Your task to perform on an android device: Search for vegetarian restaurants on Maps Image 0: 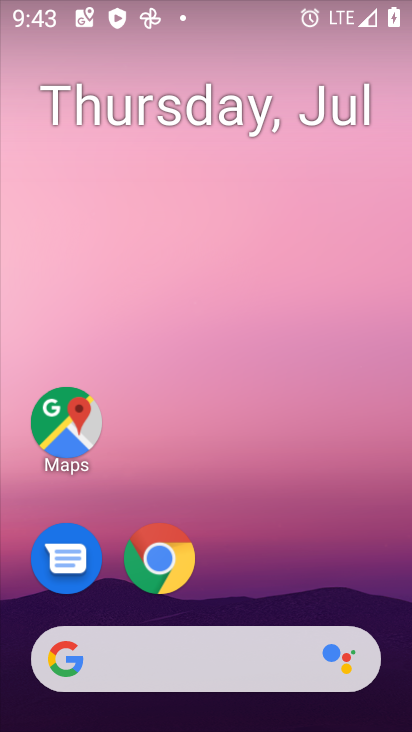
Step 0: press home button
Your task to perform on an android device: Search for vegetarian restaurants on Maps Image 1: 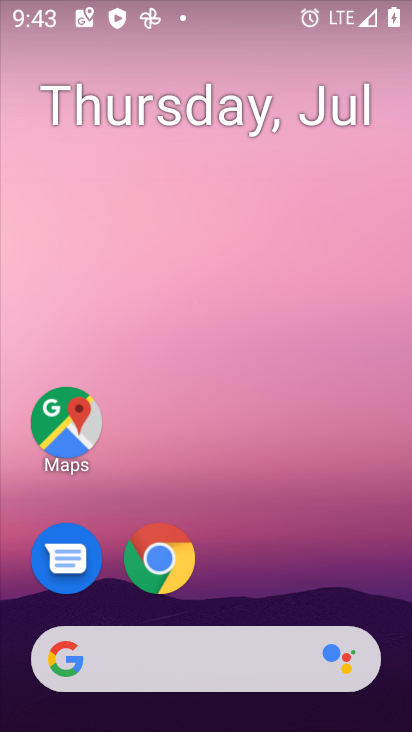
Step 1: drag from (353, 567) to (409, 566)
Your task to perform on an android device: Search for vegetarian restaurants on Maps Image 2: 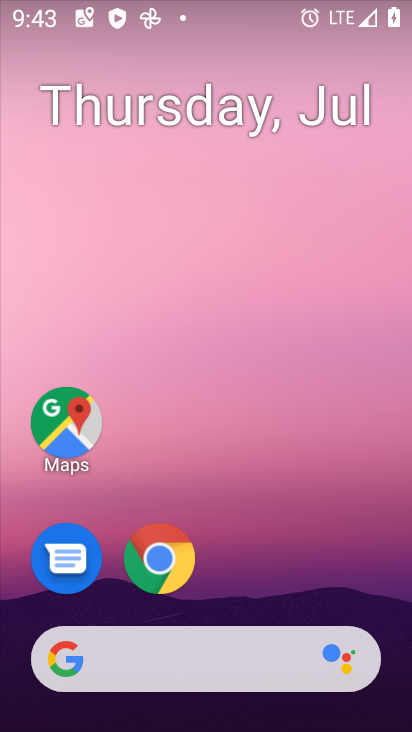
Step 2: drag from (355, 557) to (358, 19)
Your task to perform on an android device: Search for vegetarian restaurants on Maps Image 3: 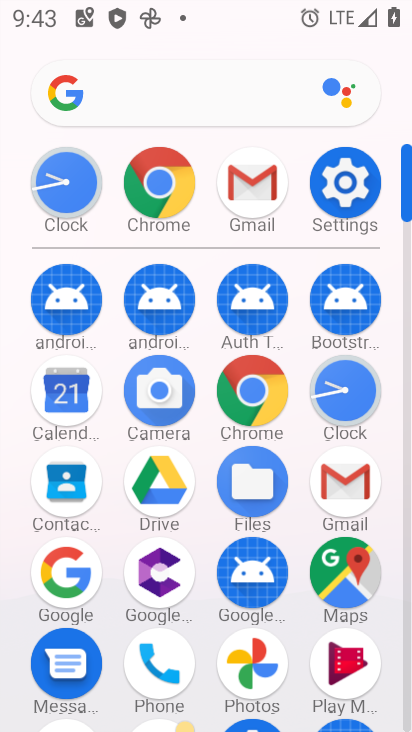
Step 3: click (350, 578)
Your task to perform on an android device: Search for vegetarian restaurants on Maps Image 4: 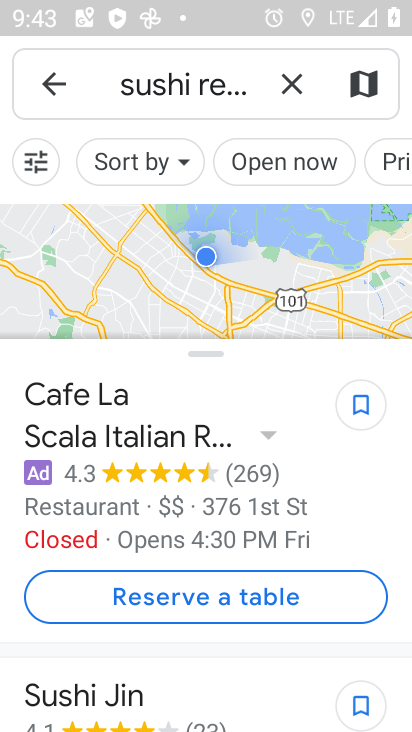
Step 4: press back button
Your task to perform on an android device: Search for vegetarian restaurants on Maps Image 5: 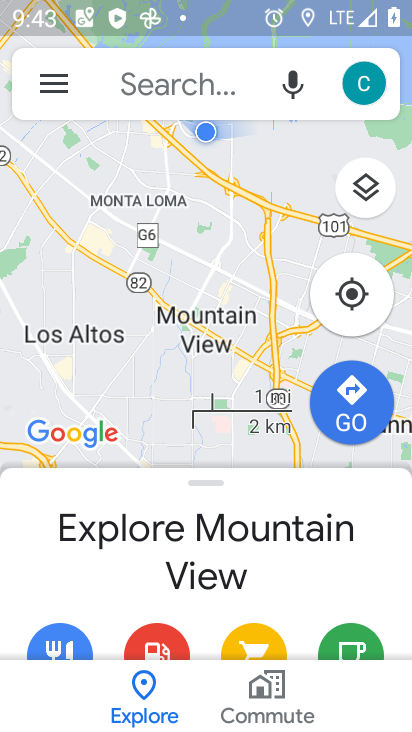
Step 5: click (173, 75)
Your task to perform on an android device: Search for vegetarian restaurants on Maps Image 6: 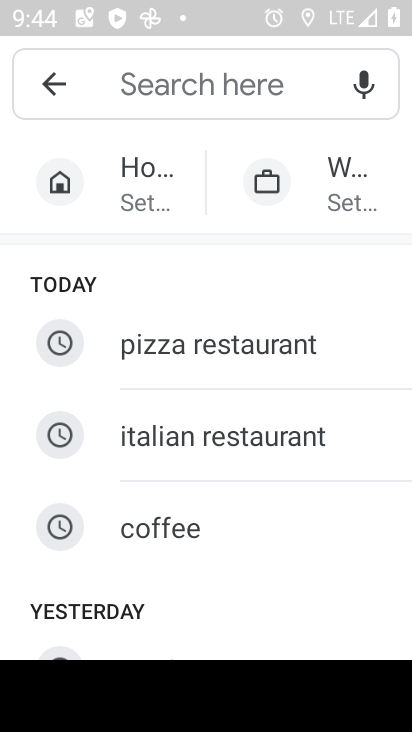
Step 6: type "vegetrain restaurants"
Your task to perform on an android device: Search for vegetarian restaurants on Maps Image 7: 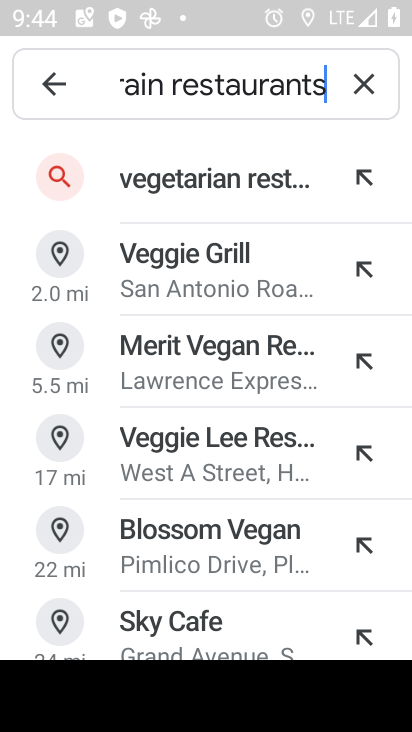
Step 7: click (280, 199)
Your task to perform on an android device: Search for vegetarian restaurants on Maps Image 8: 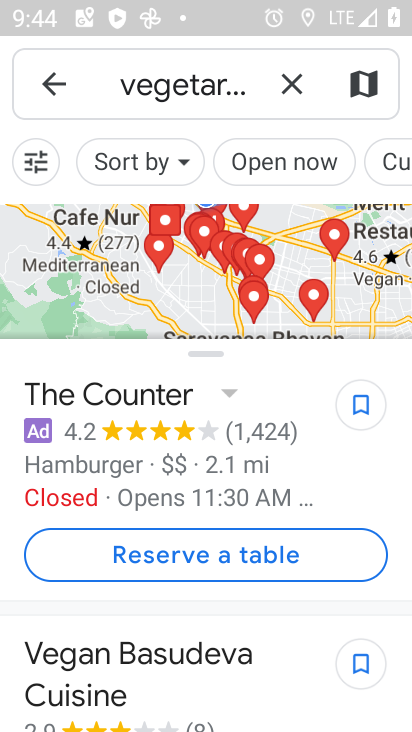
Step 8: task complete